Your task to perform on an android device: Open Chrome and go to settings Image 0: 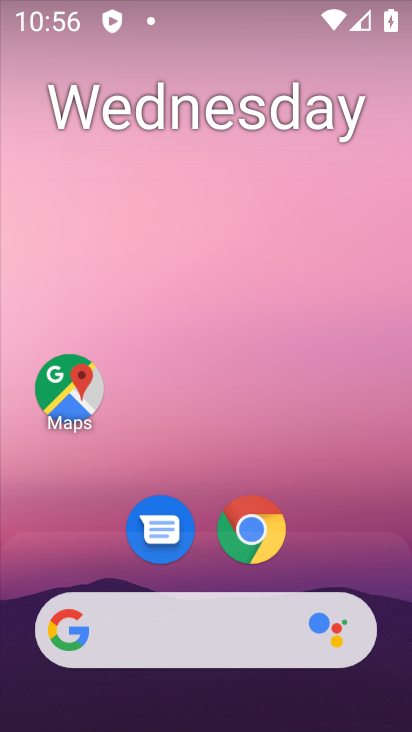
Step 0: drag from (382, 557) to (387, 91)
Your task to perform on an android device: Open Chrome and go to settings Image 1: 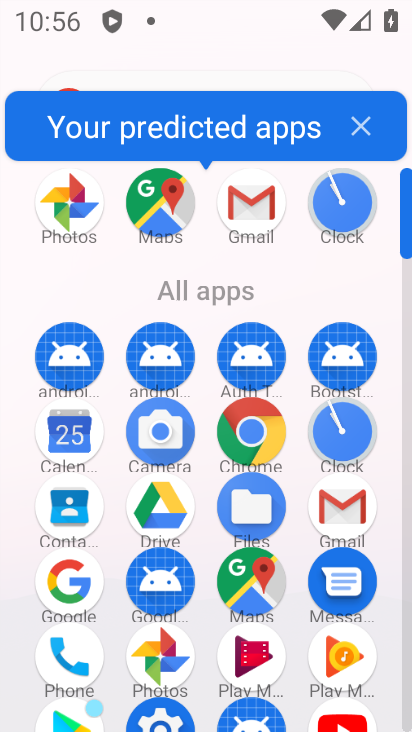
Step 1: click (259, 441)
Your task to perform on an android device: Open Chrome and go to settings Image 2: 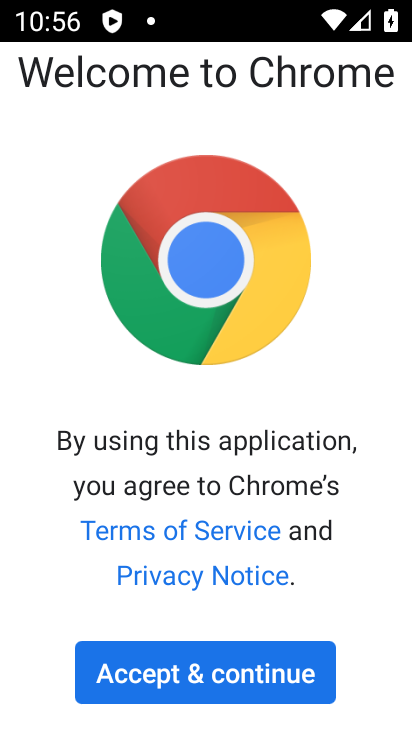
Step 2: click (299, 672)
Your task to perform on an android device: Open Chrome and go to settings Image 3: 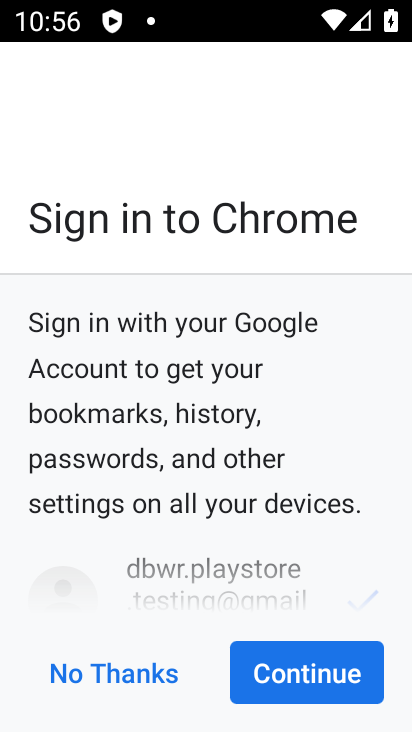
Step 3: click (299, 672)
Your task to perform on an android device: Open Chrome and go to settings Image 4: 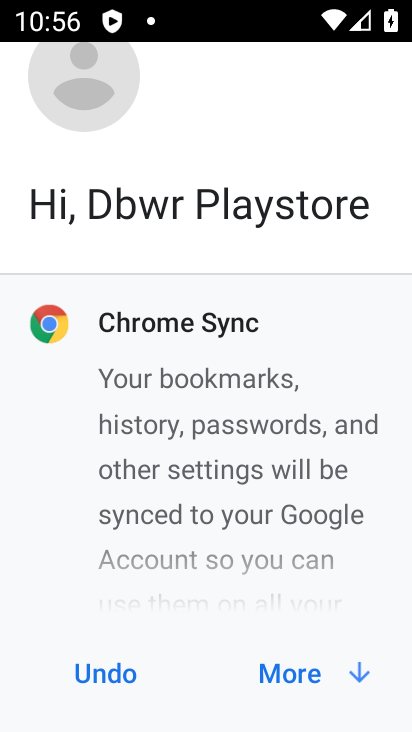
Step 4: click (299, 672)
Your task to perform on an android device: Open Chrome and go to settings Image 5: 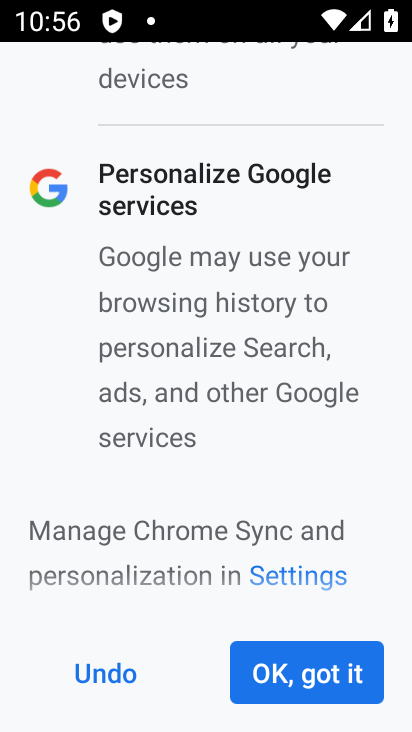
Step 5: click (299, 672)
Your task to perform on an android device: Open Chrome and go to settings Image 6: 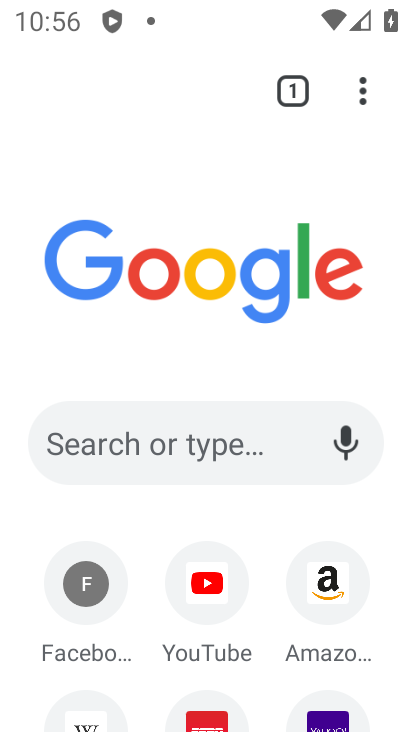
Step 6: click (366, 101)
Your task to perform on an android device: Open Chrome and go to settings Image 7: 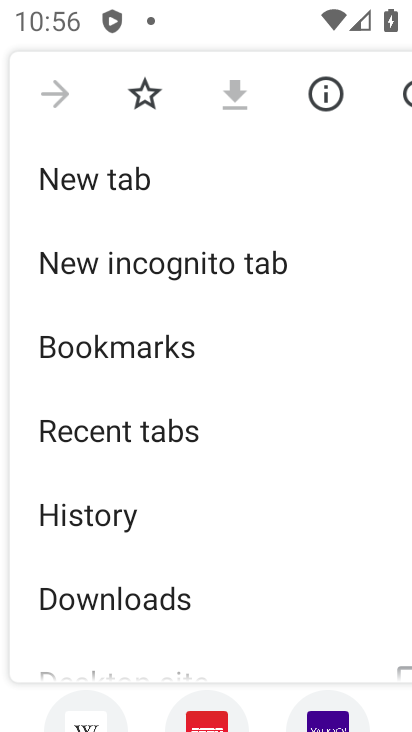
Step 7: drag from (277, 537) to (300, 425)
Your task to perform on an android device: Open Chrome and go to settings Image 8: 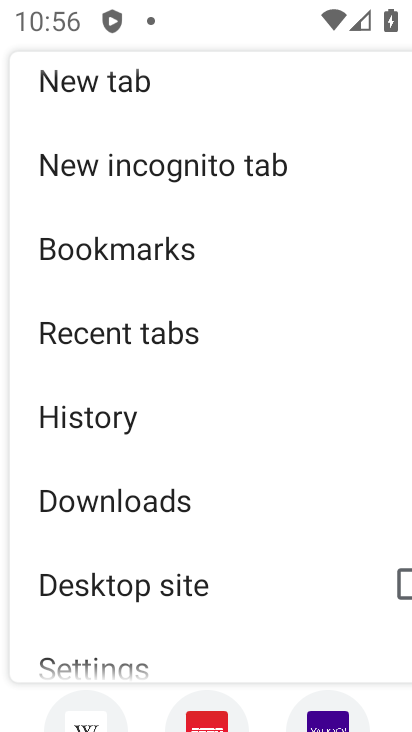
Step 8: drag from (291, 524) to (309, 424)
Your task to perform on an android device: Open Chrome and go to settings Image 9: 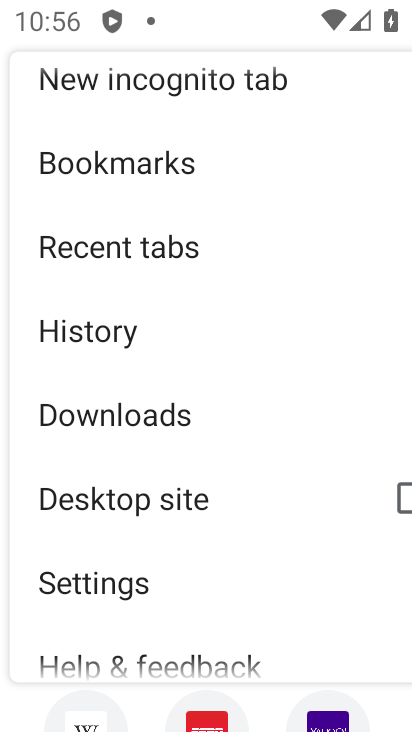
Step 9: drag from (299, 564) to (329, 412)
Your task to perform on an android device: Open Chrome and go to settings Image 10: 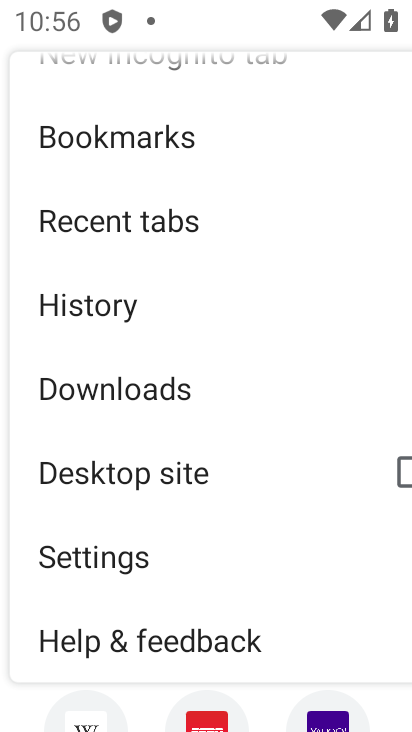
Step 10: click (196, 564)
Your task to perform on an android device: Open Chrome and go to settings Image 11: 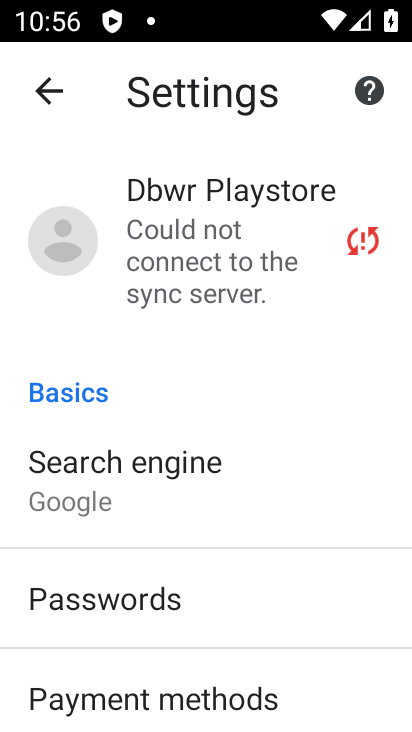
Step 11: task complete